Your task to perform on an android device: change keyboard looks Image 0: 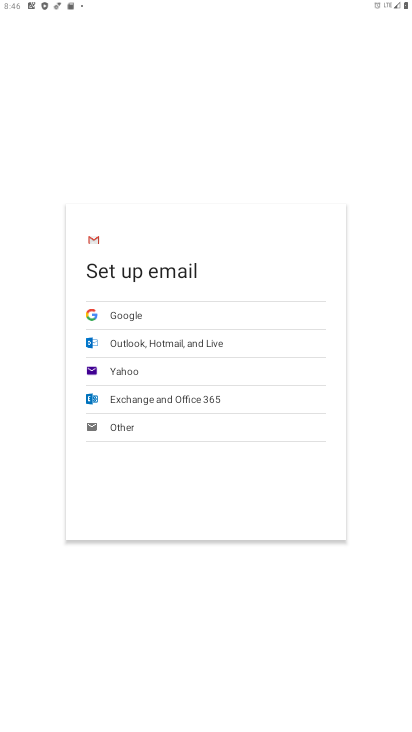
Step 0: press home button
Your task to perform on an android device: change keyboard looks Image 1: 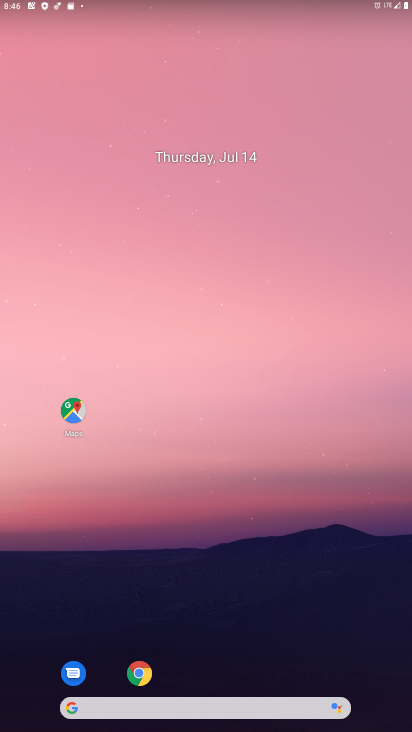
Step 1: drag from (199, 710) to (390, 138)
Your task to perform on an android device: change keyboard looks Image 2: 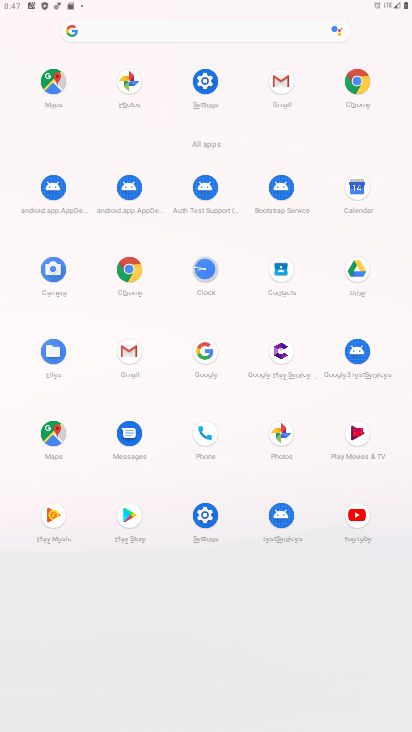
Step 2: click (207, 80)
Your task to perform on an android device: change keyboard looks Image 3: 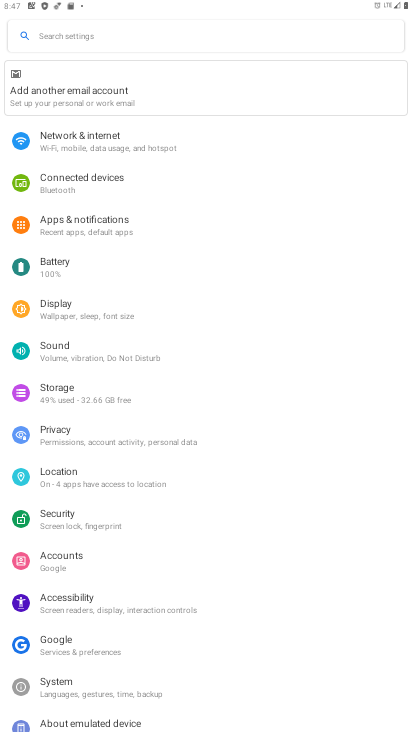
Step 3: click (62, 684)
Your task to perform on an android device: change keyboard looks Image 4: 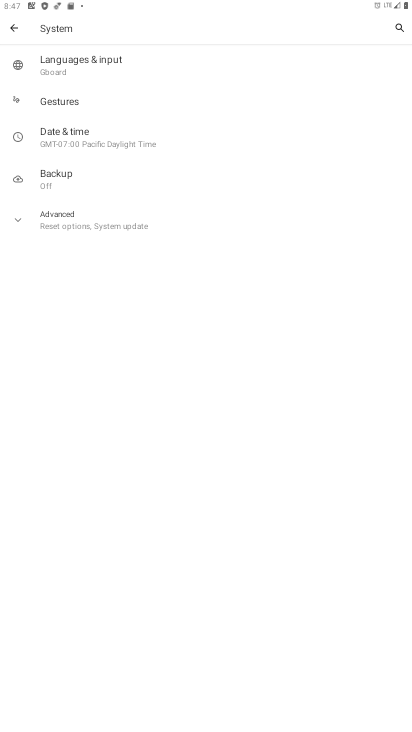
Step 4: click (58, 67)
Your task to perform on an android device: change keyboard looks Image 5: 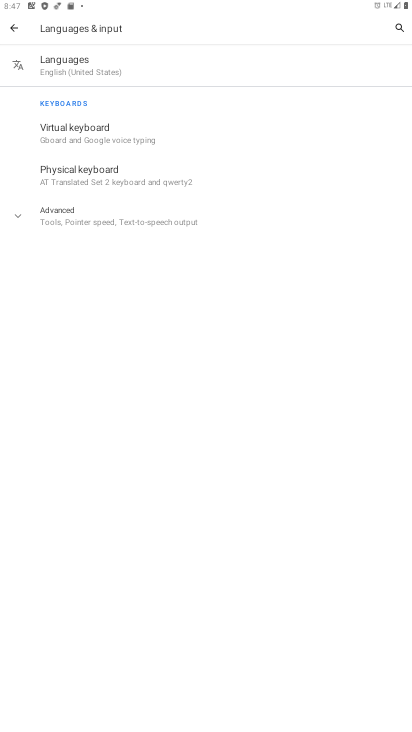
Step 5: click (93, 134)
Your task to perform on an android device: change keyboard looks Image 6: 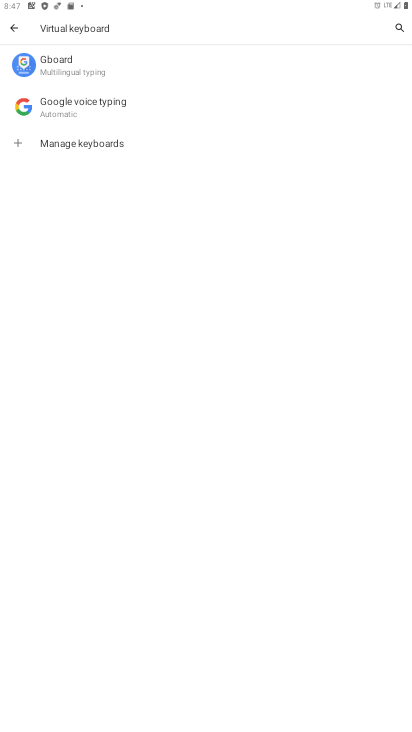
Step 6: click (56, 65)
Your task to perform on an android device: change keyboard looks Image 7: 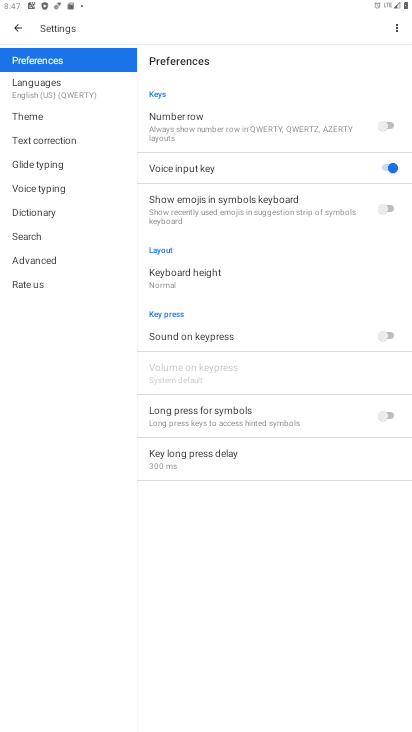
Step 7: click (43, 113)
Your task to perform on an android device: change keyboard looks Image 8: 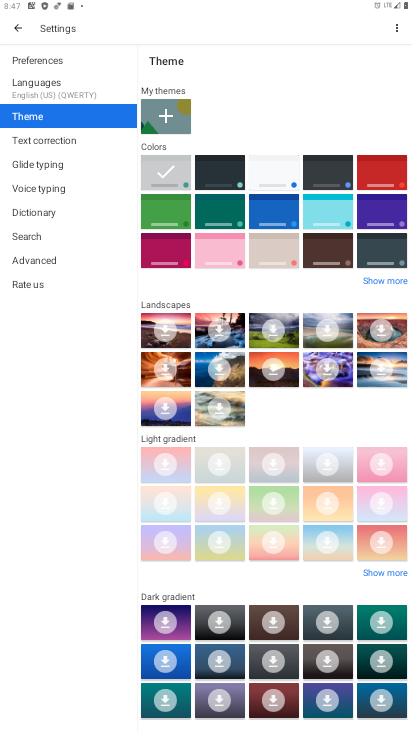
Step 8: click (215, 248)
Your task to perform on an android device: change keyboard looks Image 9: 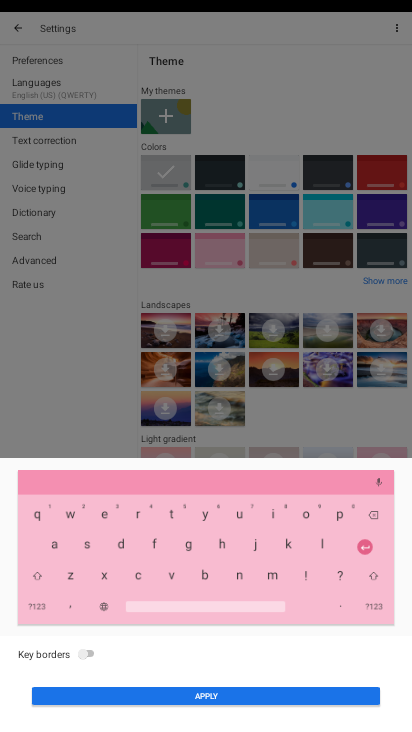
Step 9: click (88, 656)
Your task to perform on an android device: change keyboard looks Image 10: 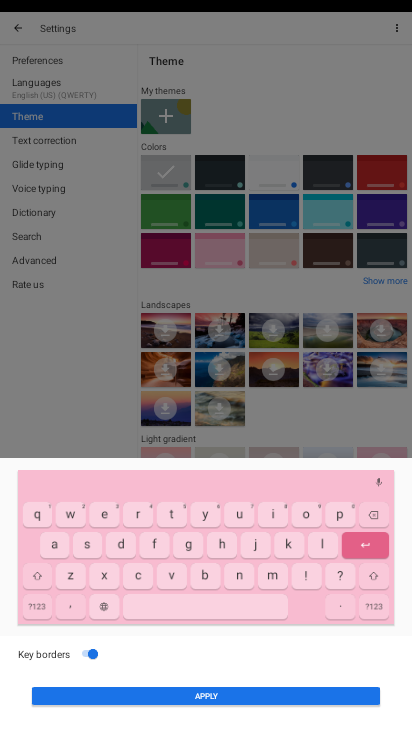
Step 10: click (214, 701)
Your task to perform on an android device: change keyboard looks Image 11: 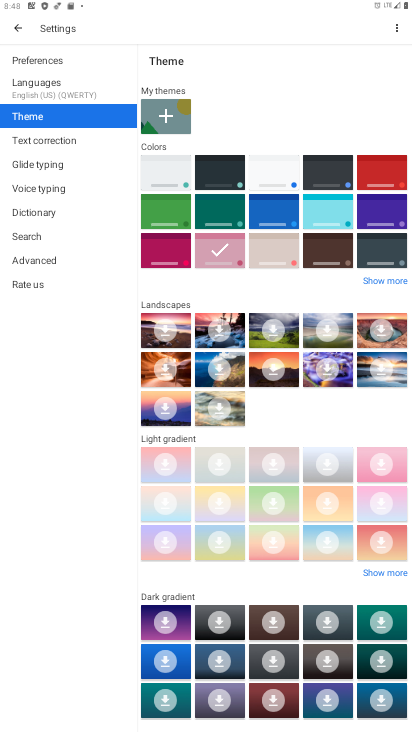
Step 11: task complete